Your task to perform on an android device: Open maps Image 0: 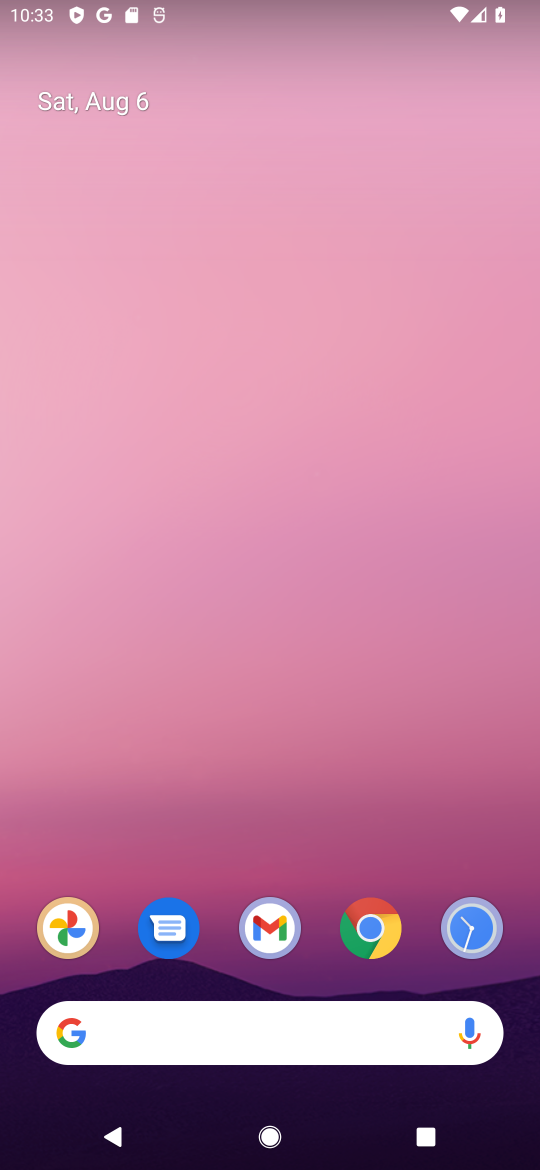
Step 0: drag from (255, 816) to (117, 197)
Your task to perform on an android device: Open maps Image 1: 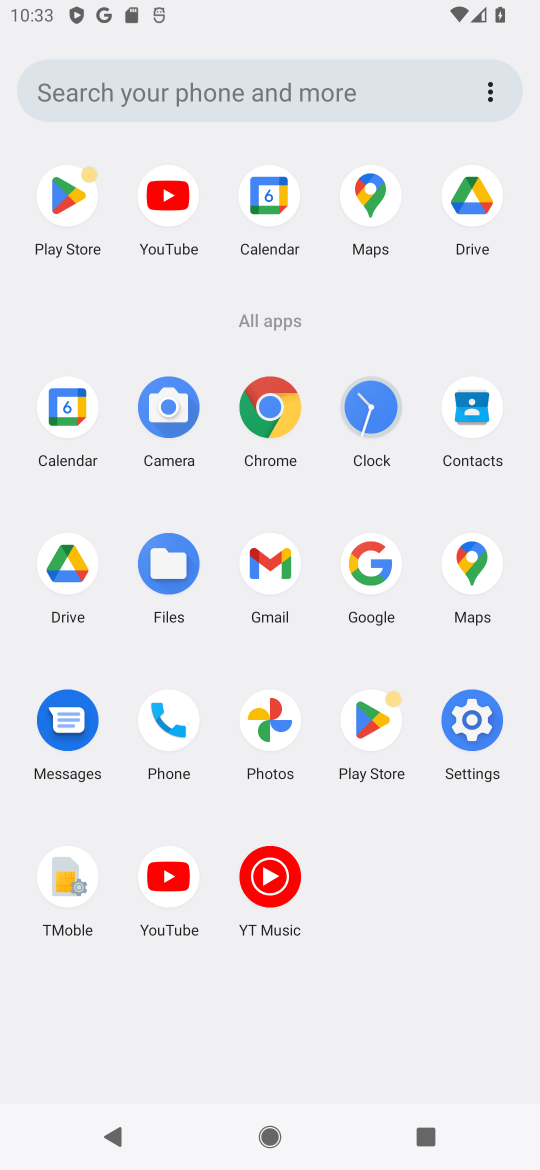
Step 1: click (461, 582)
Your task to perform on an android device: Open maps Image 2: 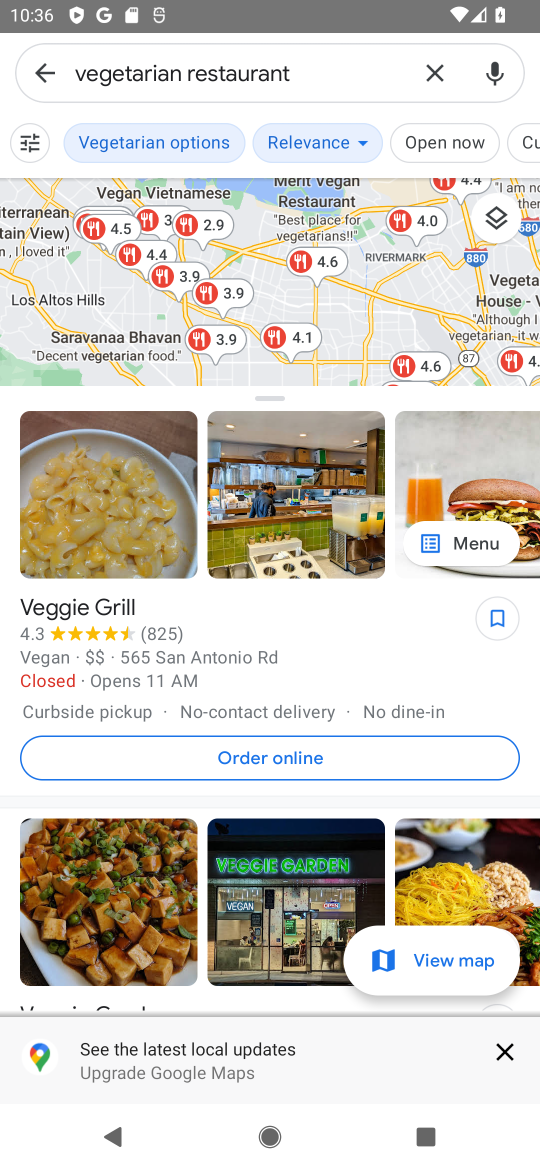
Step 2: task complete